Your task to perform on an android device: What's on my calendar tomorrow? Image 0: 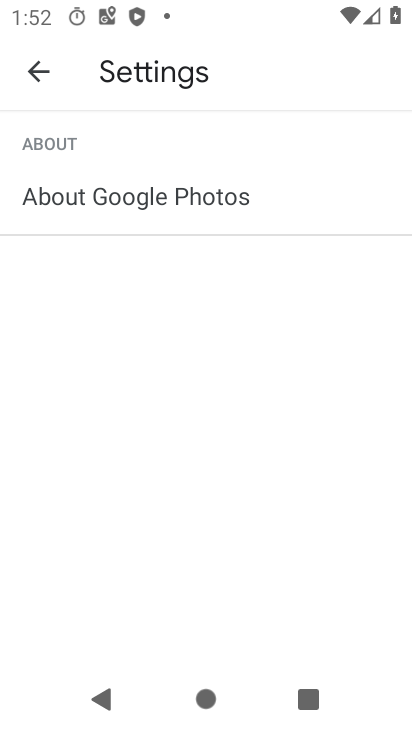
Step 0: press home button
Your task to perform on an android device: What's on my calendar tomorrow? Image 1: 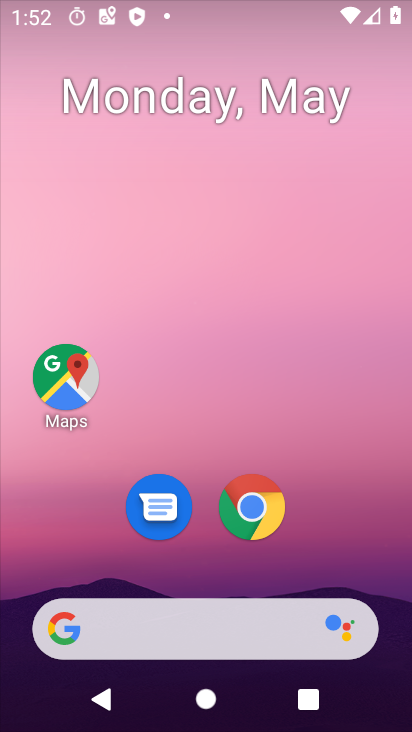
Step 1: drag from (321, 530) to (292, 101)
Your task to perform on an android device: What's on my calendar tomorrow? Image 2: 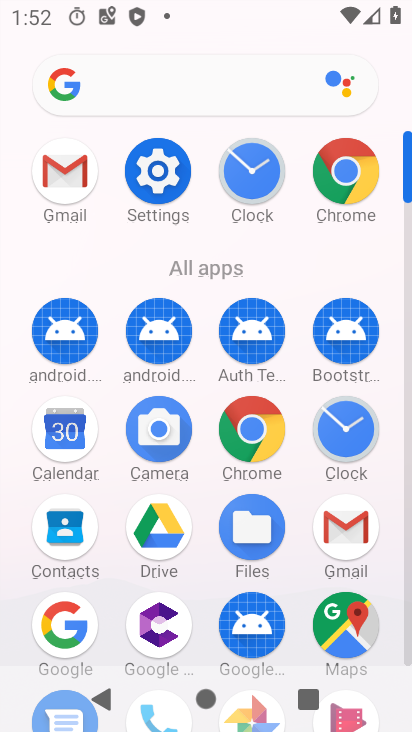
Step 2: click (70, 441)
Your task to perform on an android device: What's on my calendar tomorrow? Image 3: 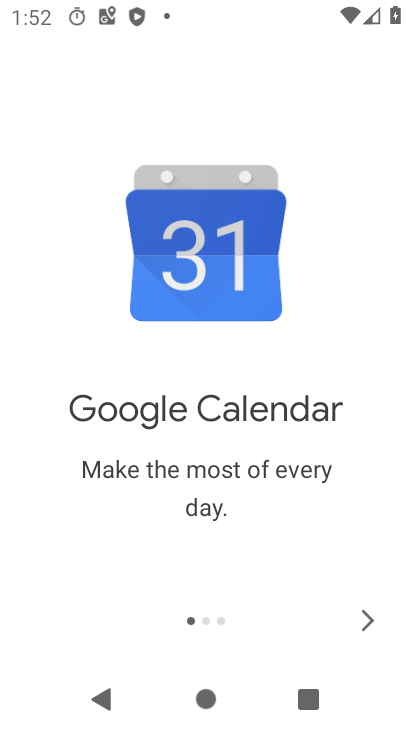
Step 3: click (364, 631)
Your task to perform on an android device: What's on my calendar tomorrow? Image 4: 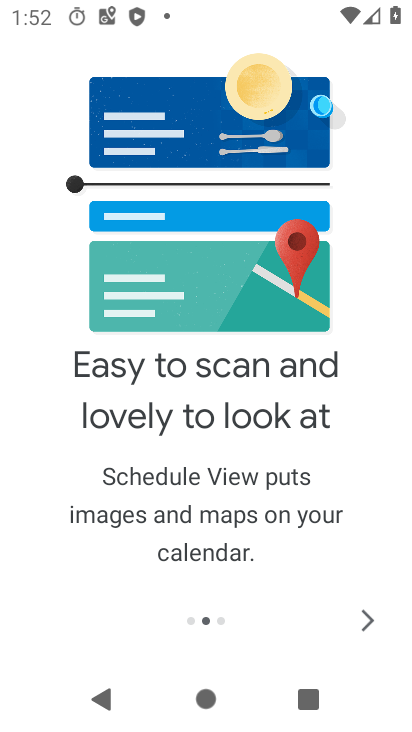
Step 4: click (365, 630)
Your task to perform on an android device: What's on my calendar tomorrow? Image 5: 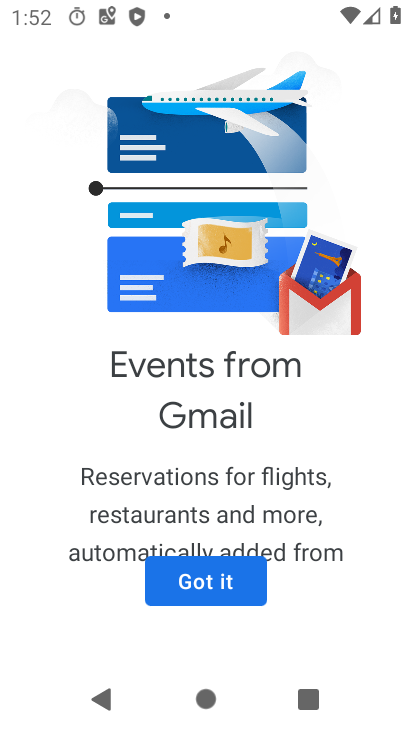
Step 5: click (223, 585)
Your task to perform on an android device: What's on my calendar tomorrow? Image 6: 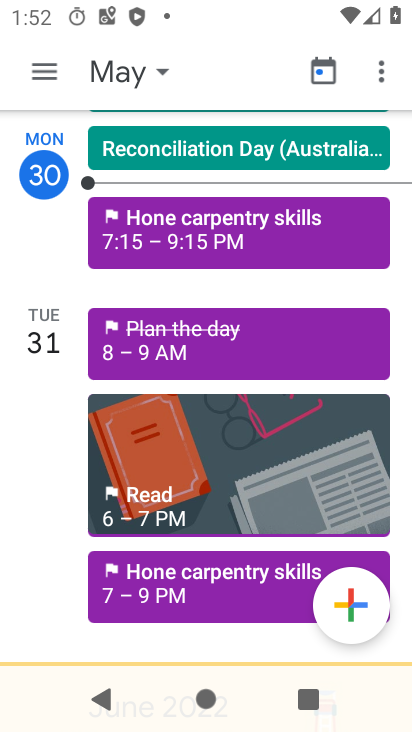
Step 6: click (132, 80)
Your task to perform on an android device: What's on my calendar tomorrow? Image 7: 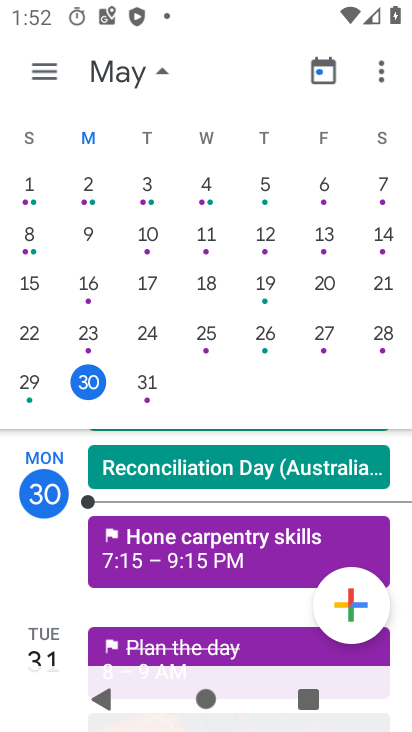
Step 7: click (136, 381)
Your task to perform on an android device: What's on my calendar tomorrow? Image 8: 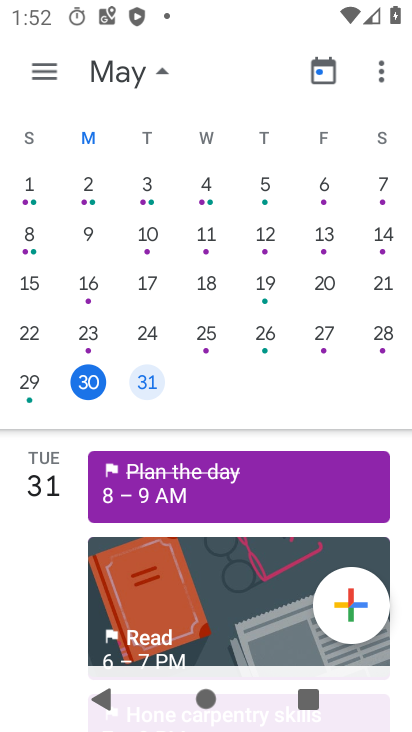
Step 8: drag from (95, 618) to (144, 320)
Your task to perform on an android device: What's on my calendar tomorrow? Image 9: 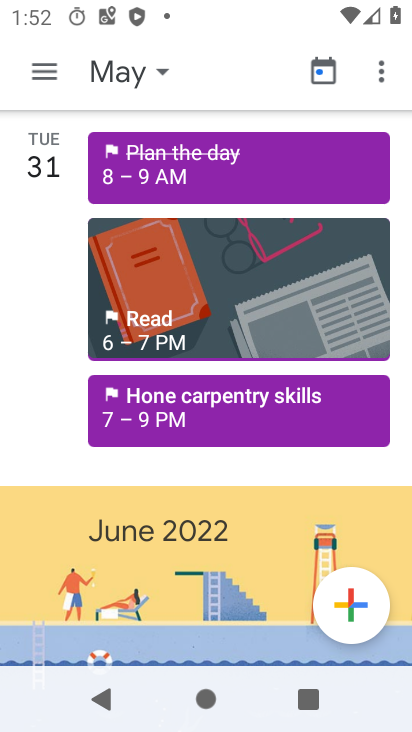
Step 9: click (187, 209)
Your task to perform on an android device: What's on my calendar tomorrow? Image 10: 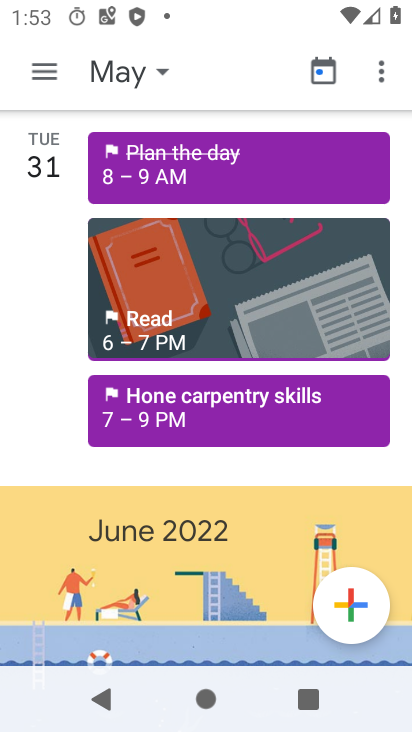
Step 10: task complete